Your task to perform on an android device: When is my next meeting? Image 0: 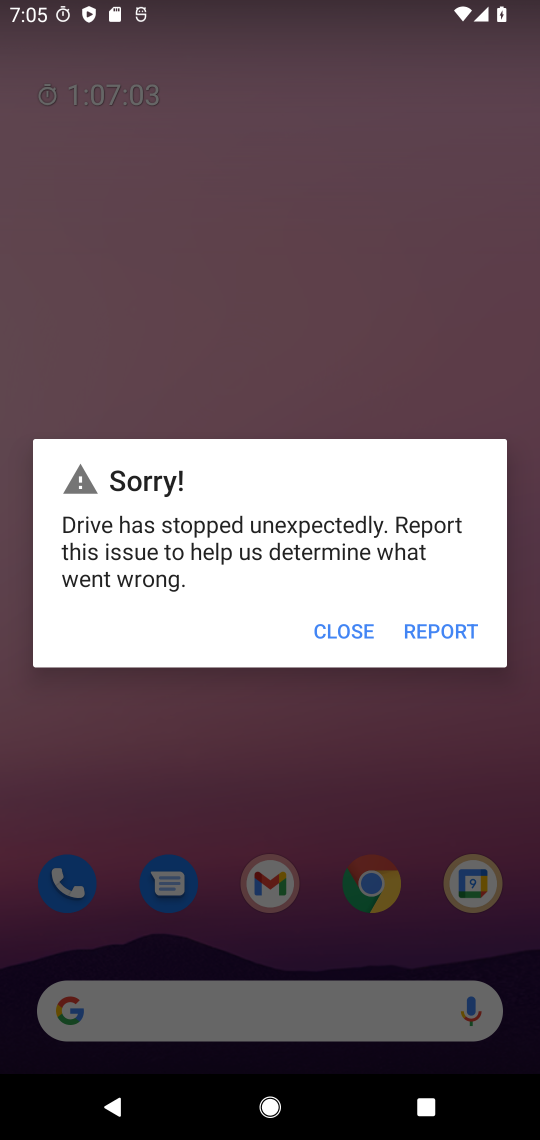
Step 0: click (335, 633)
Your task to perform on an android device: When is my next meeting? Image 1: 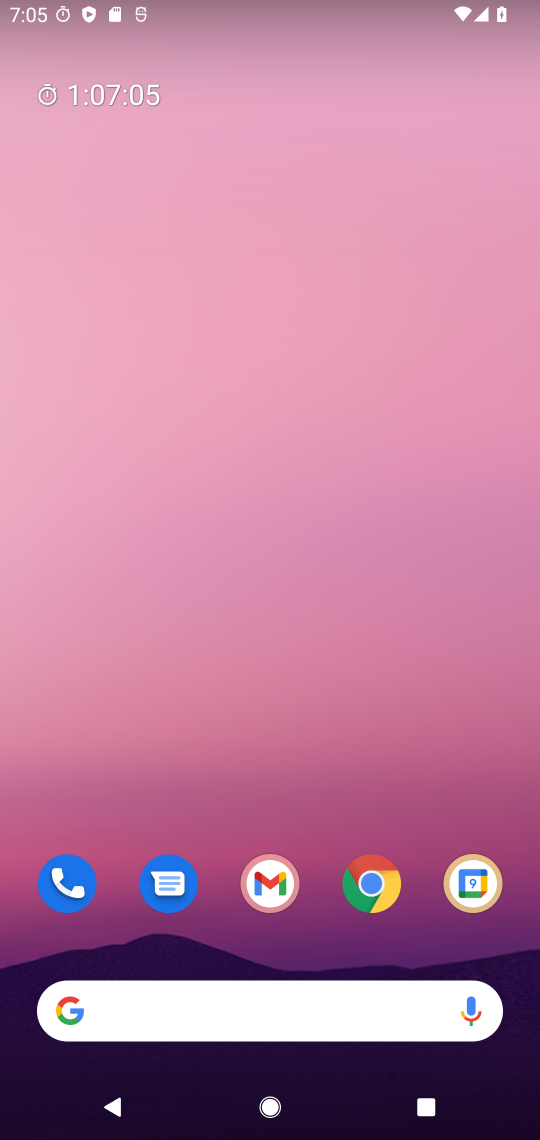
Step 1: drag from (286, 713) to (309, 120)
Your task to perform on an android device: When is my next meeting? Image 2: 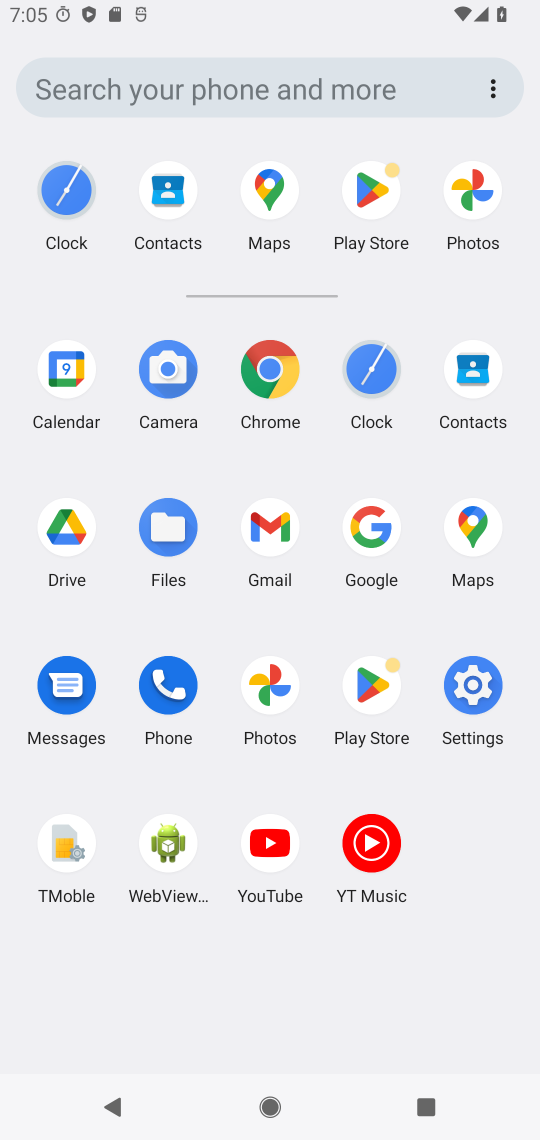
Step 2: click (63, 387)
Your task to perform on an android device: When is my next meeting? Image 3: 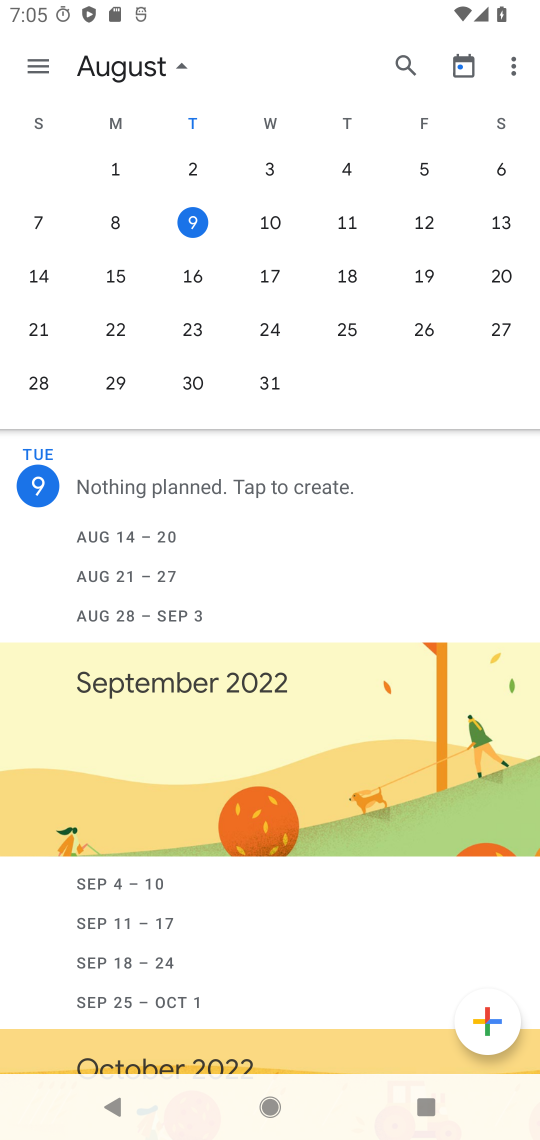
Step 3: click (251, 225)
Your task to perform on an android device: When is my next meeting? Image 4: 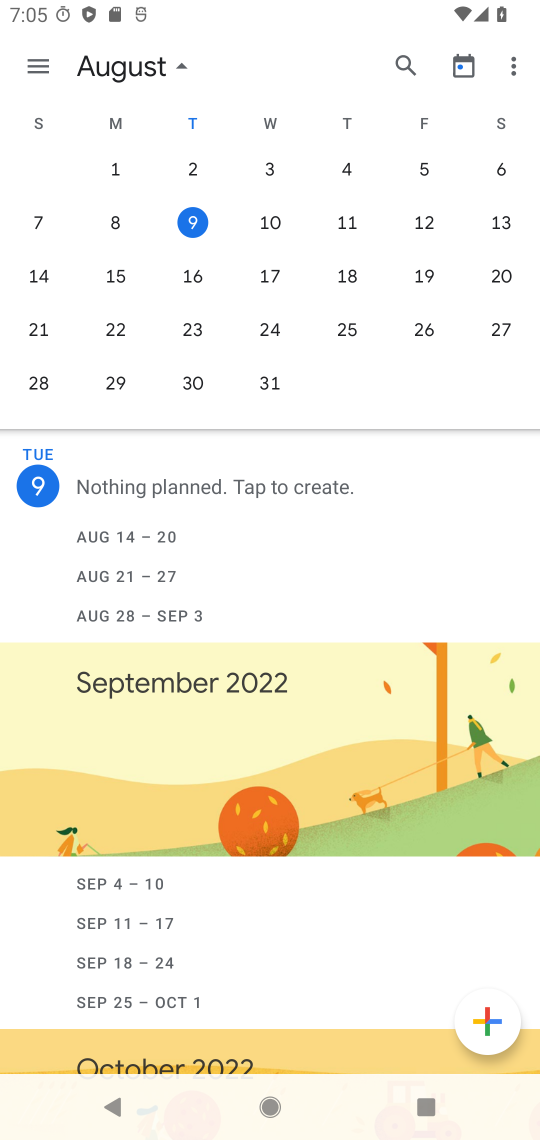
Step 4: click (291, 225)
Your task to perform on an android device: When is my next meeting? Image 5: 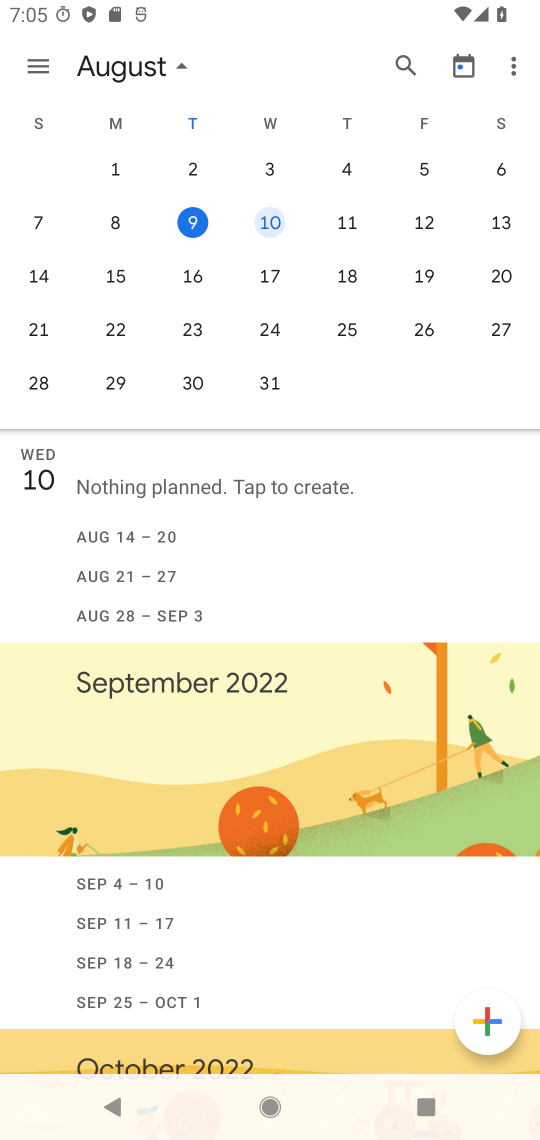
Step 5: click (330, 225)
Your task to perform on an android device: When is my next meeting? Image 6: 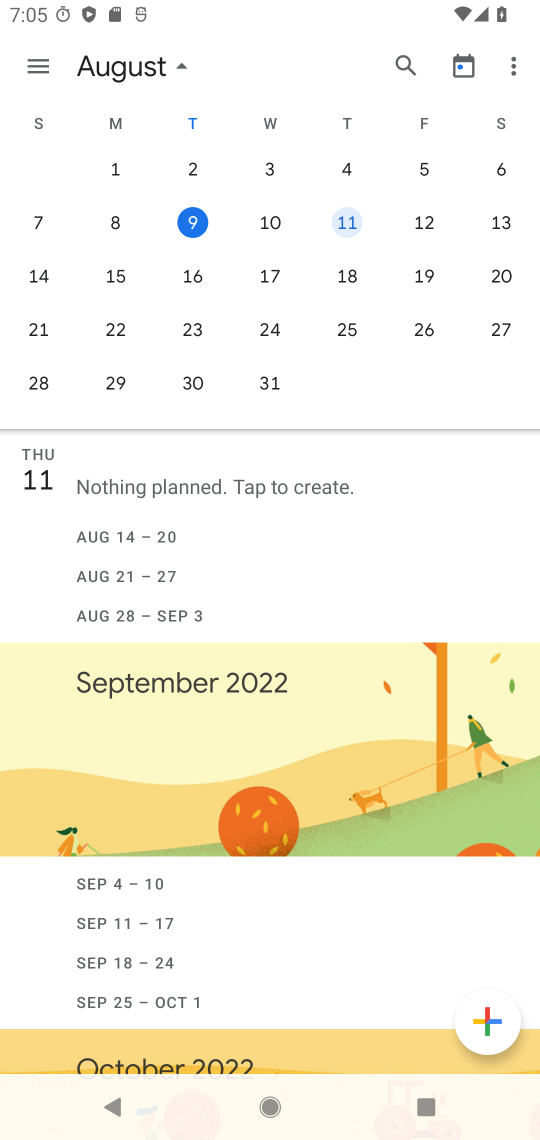
Step 6: task complete